Your task to perform on an android device: Open the map Image 0: 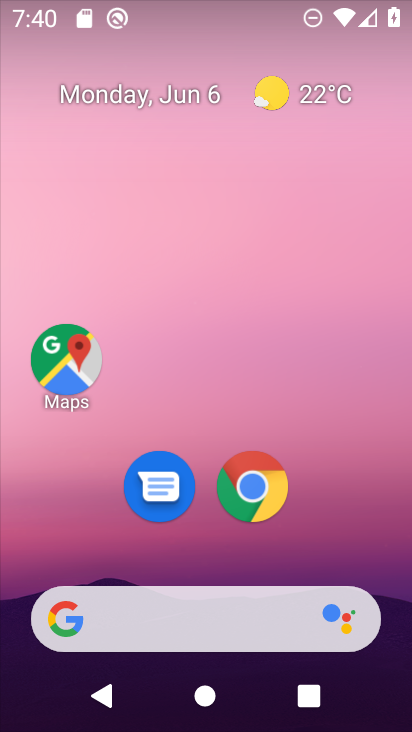
Step 0: drag from (398, 626) to (314, 37)
Your task to perform on an android device: Open the map Image 1: 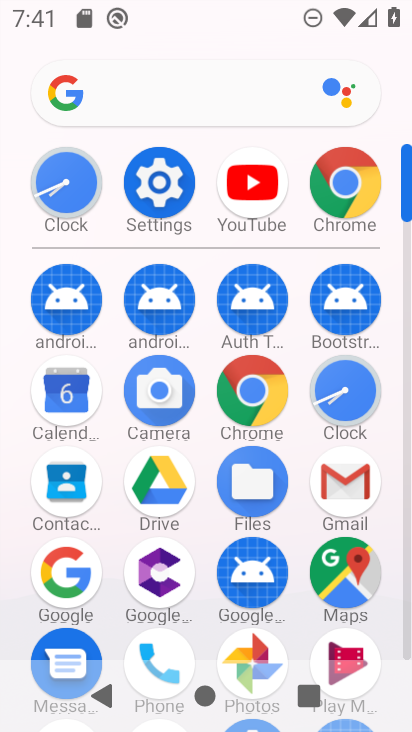
Step 1: click (355, 566)
Your task to perform on an android device: Open the map Image 2: 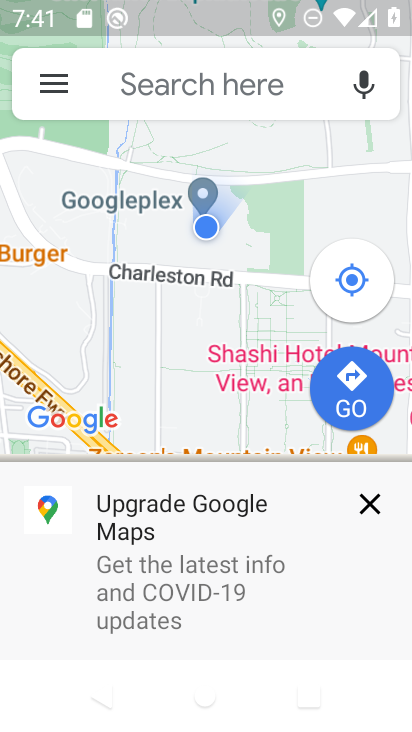
Step 2: task complete